Your task to perform on an android device: Open Google Chrome Image 0: 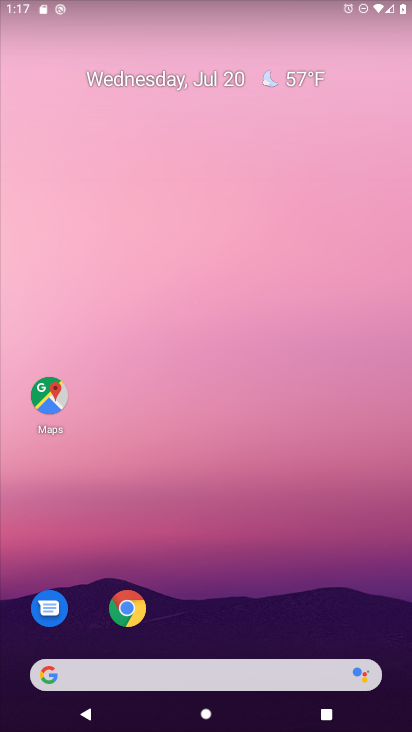
Step 0: click (126, 615)
Your task to perform on an android device: Open Google Chrome Image 1: 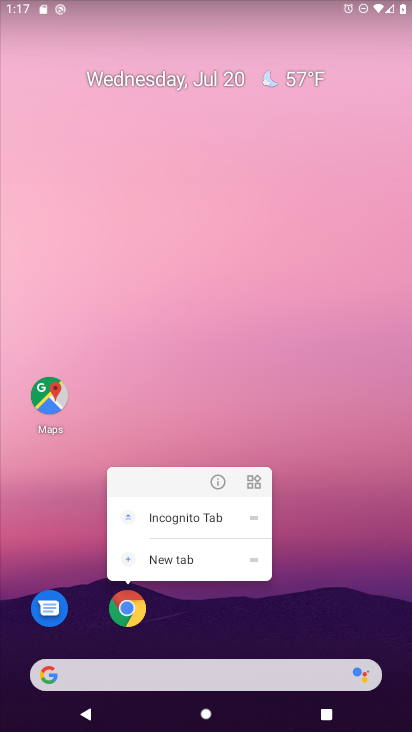
Step 1: click (129, 610)
Your task to perform on an android device: Open Google Chrome Image 2: 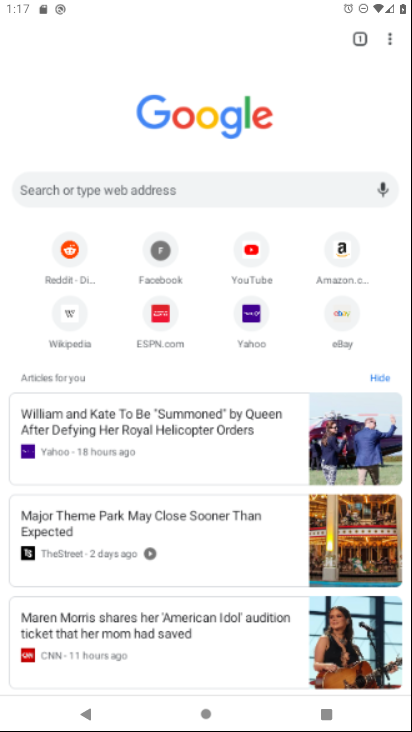
Step 2: task complete